Your task to perform on an android device: Open display settings Image 0: 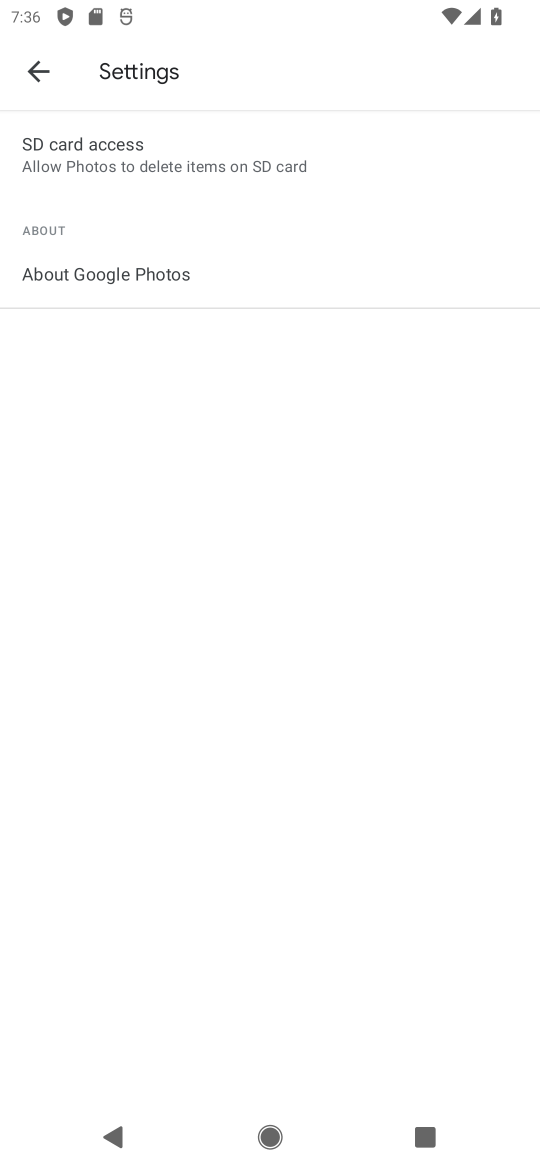
Step 0: press home button
Your task to perform on an android device: Open display settings Image 1: 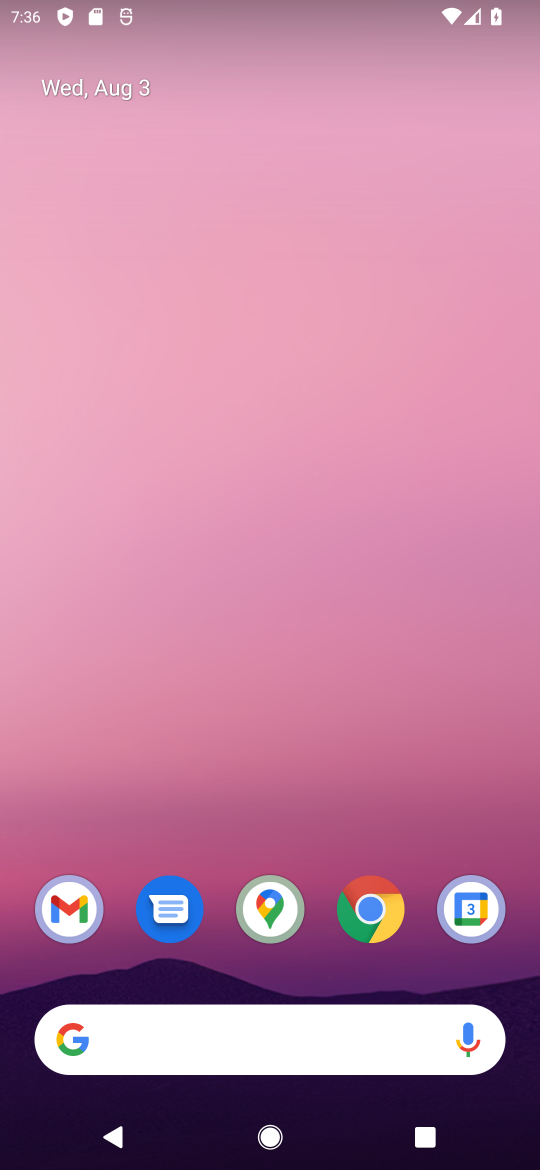
Step 1: drag from (318, 787) to (291, 106)
Your task to perform on an android device: Open display settings Image 2: 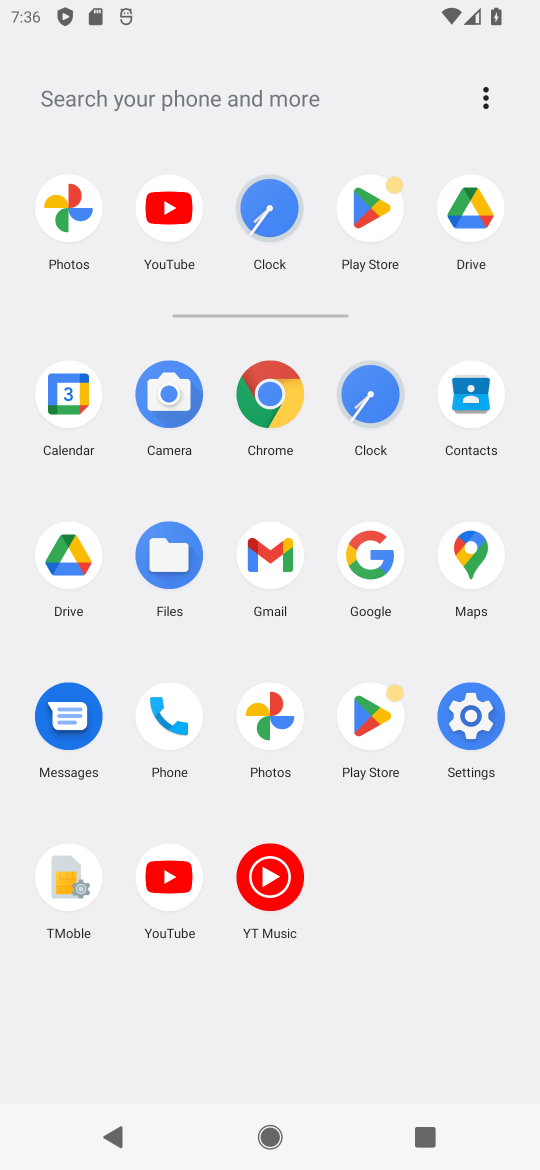
Step 2: click (474, 707)
Your task to perform on an android device: Open display settings Image 3: 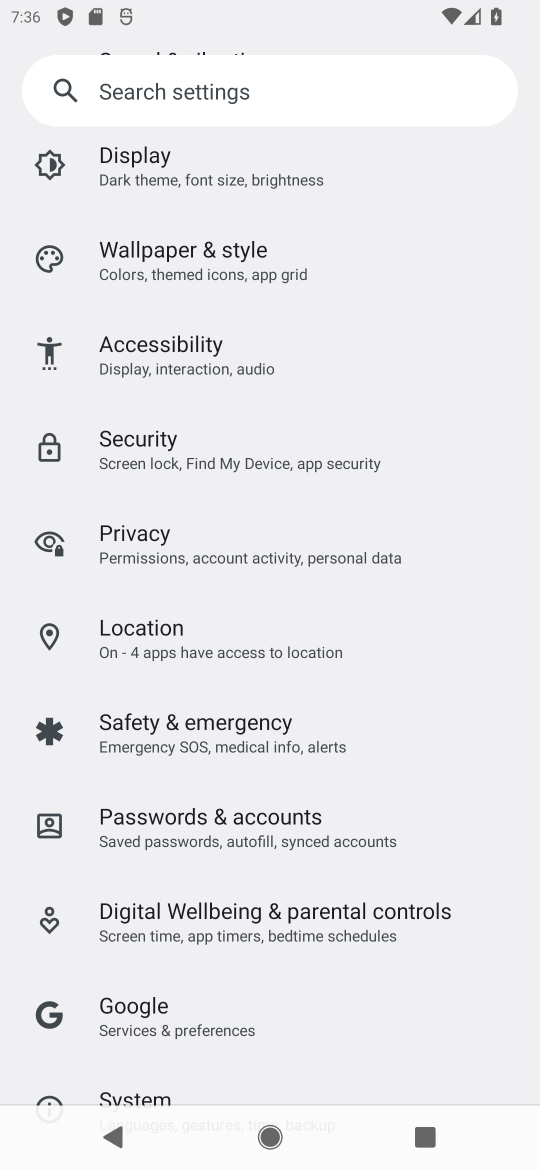
Step 3: drag from (427, 859) to (410, 459)
Your task to perform on an android device: Open display settings Image 4: 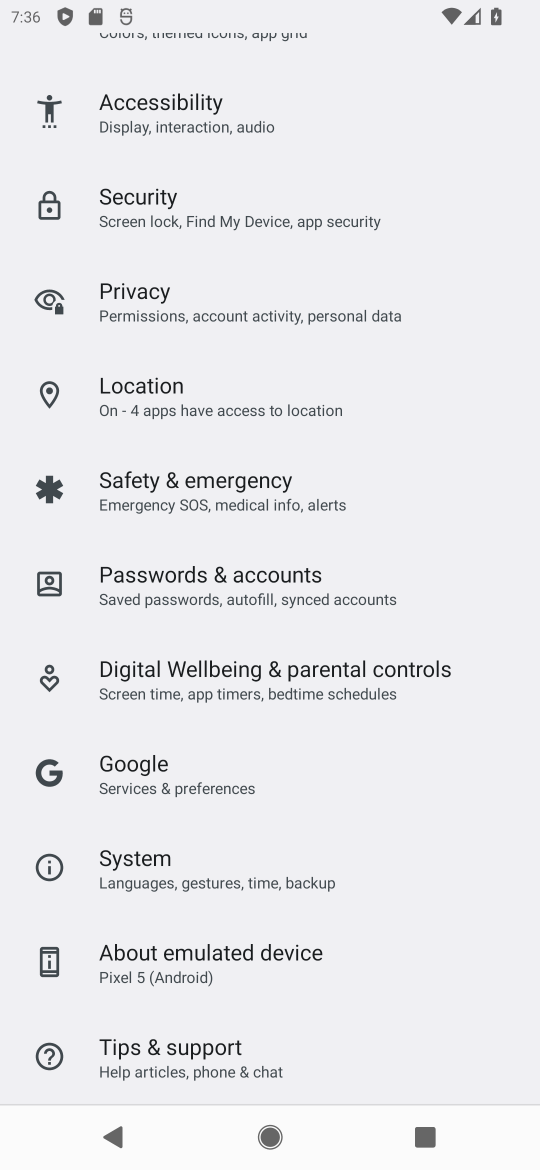
Step 4: drag from (455, 333) to (440, 785)
Your task to perform on an android device: Open display settings Image 5: 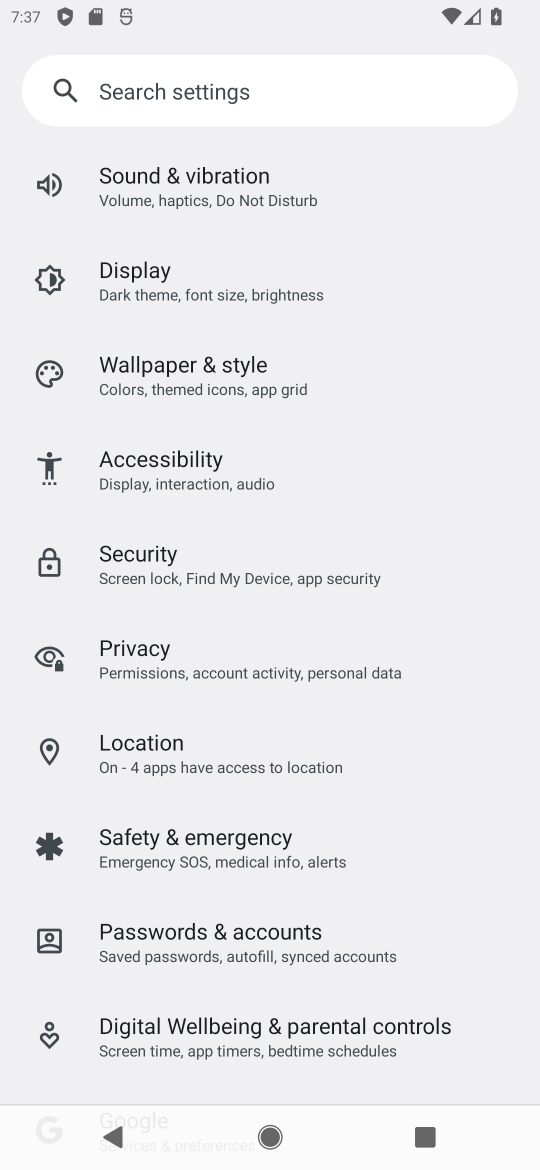
Step 5: drag from (440, 283) to (418, 721)
Your task to perform on an android device: Open display settings Image 6: 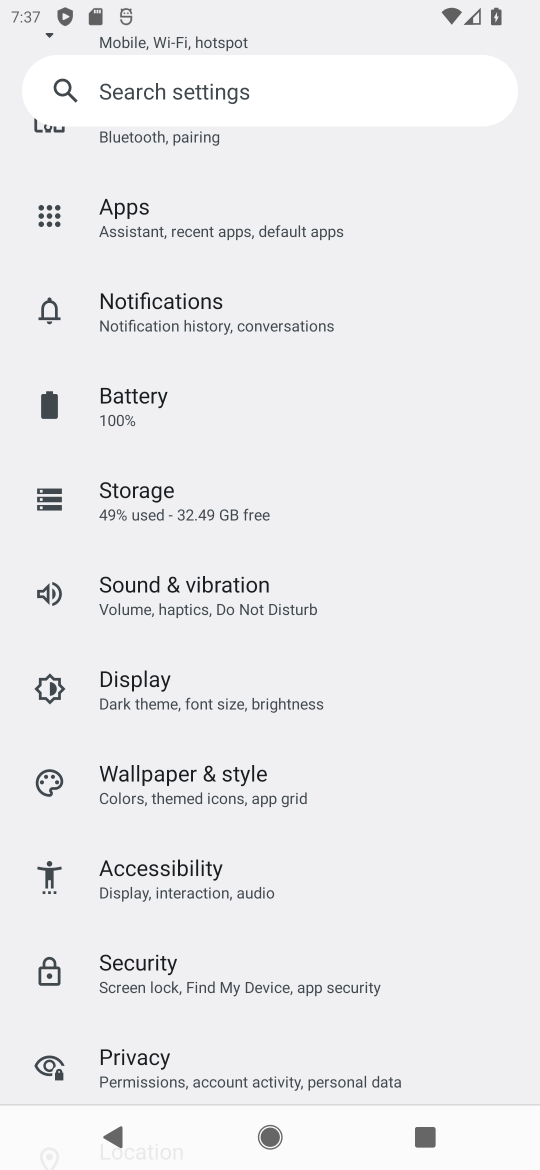
Step 6: click (271, 695)
Your task to perform on an android device: Open display settings Image 7: 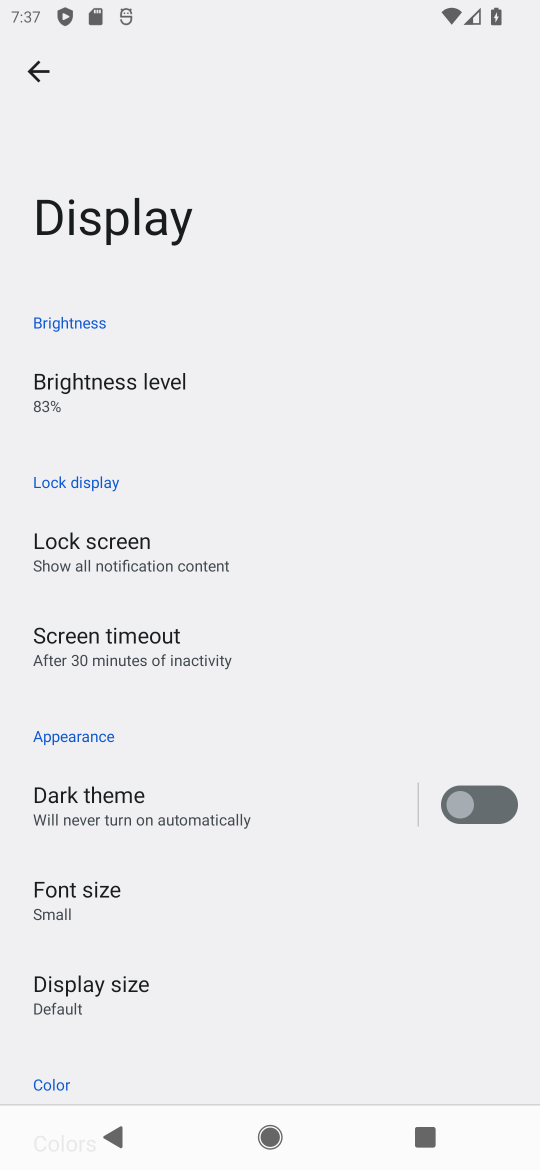
Step 7: task complete